Your task to perform on an android device: Go to Reddit.com Image 0: 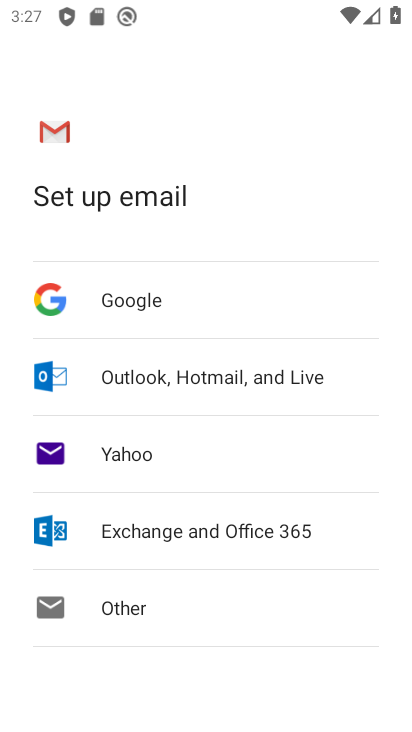
Step 0: press home button
Your task to perform on an android device: Go to Reddit.com Image 1: 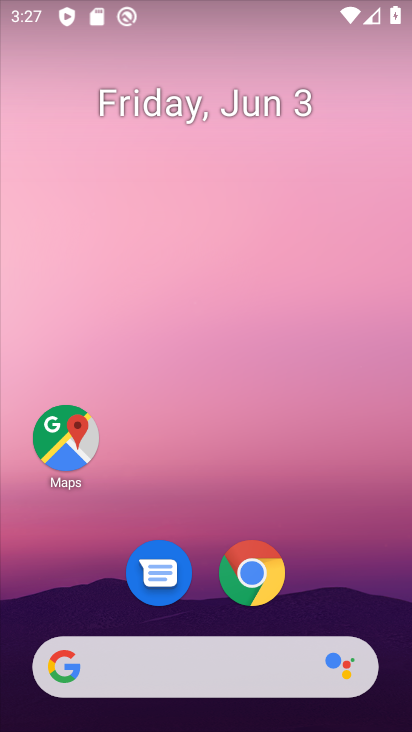
Step 1: drag from (408, 680) to (380, 144)
Your task to perform on an android device: Go to Reddit.com Image 2: 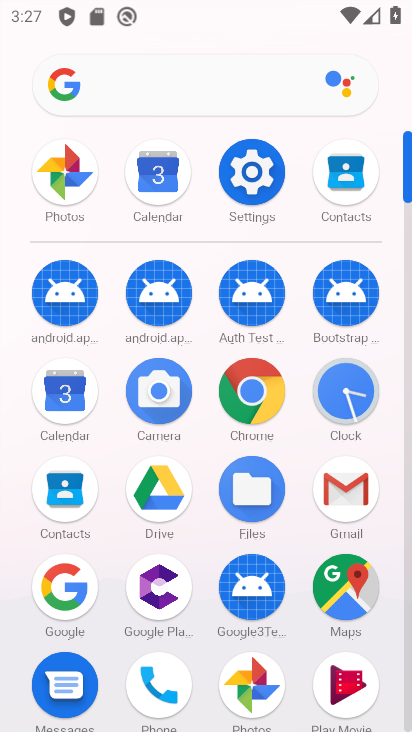
Step 2: click (252, 451)
Your task to perform on an android device: Go to Reddit.com Image 3: 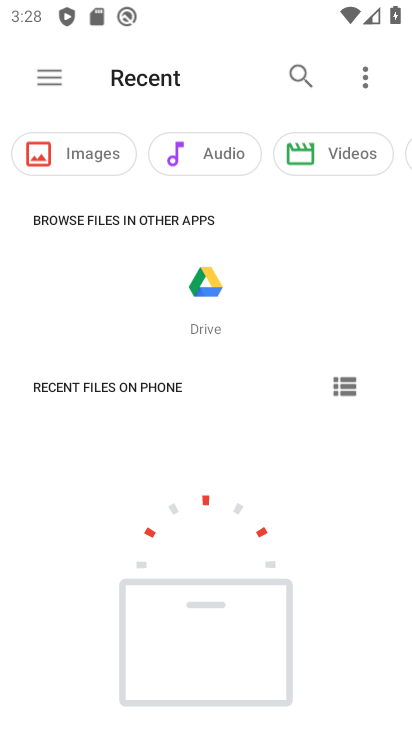
Step 3: press home button
Your task to perform on an android device: Go to Reddit.com Image 4: 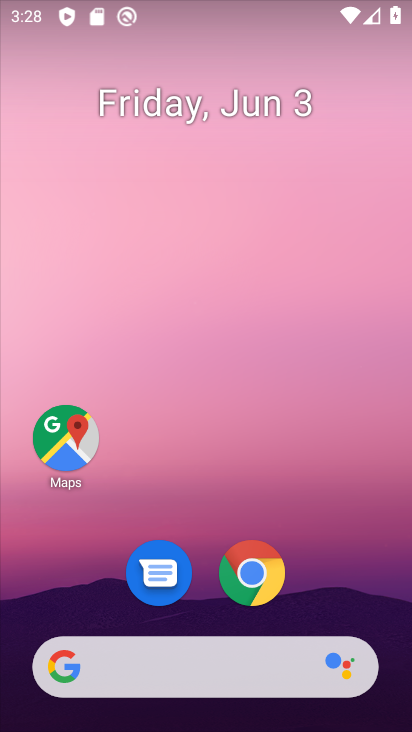
Step 4: click (234, 558)
Your task to perform on an android device: Go to Reddit.com Image 5: 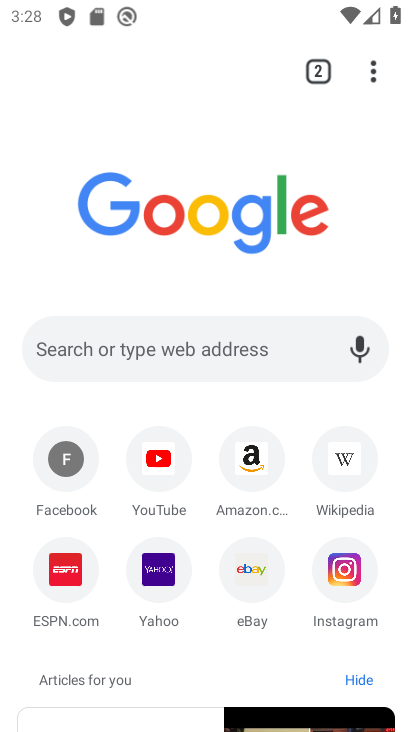
Step 5: click (267, 362)
Your task to perform on an android device: Go to Reddit.com Image 6: 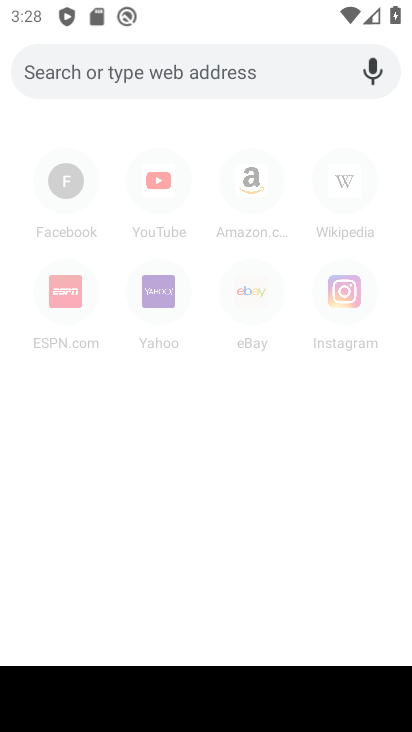
Step 6: type "Reddit.com"
Your task to perform on an android device: Go to Reddit.com Image 7: 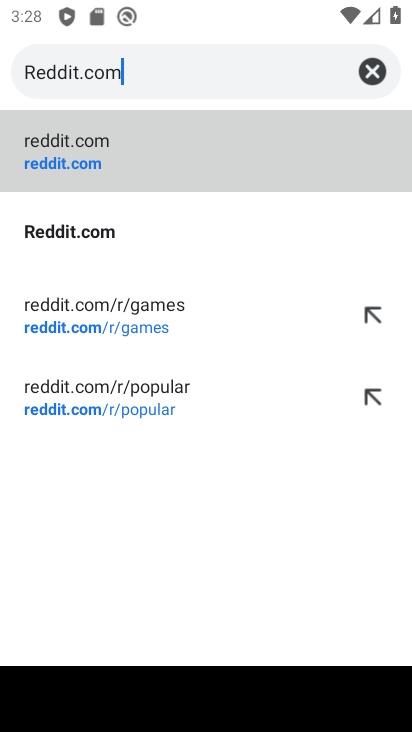
Step 7: click (87, 226)
Your task to perform on an android device: Go to Reddit.com Image 8: 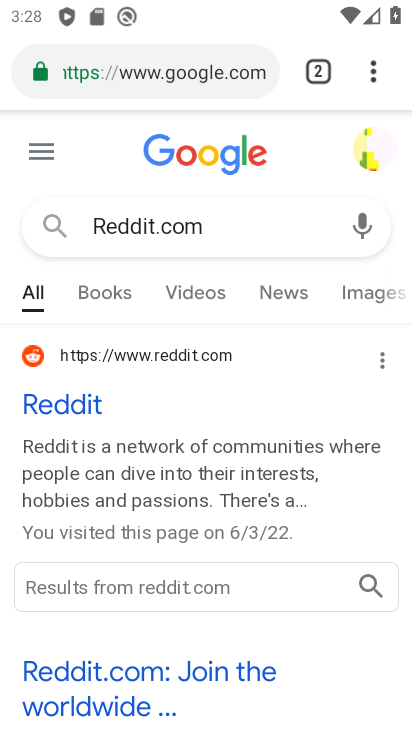
Step 8: task complete